Your task to perform on an android device: turn pop-ups on in chrome Image 0: 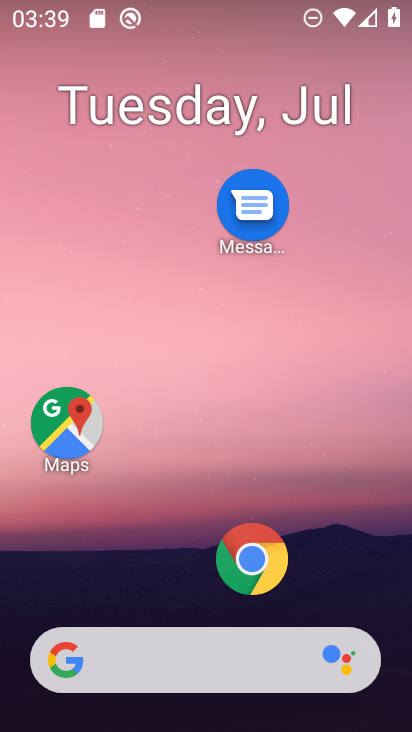
Step 0: click (259, 563)
Your task to perform on an android device: turn pop-ups on in chrome Image 1: 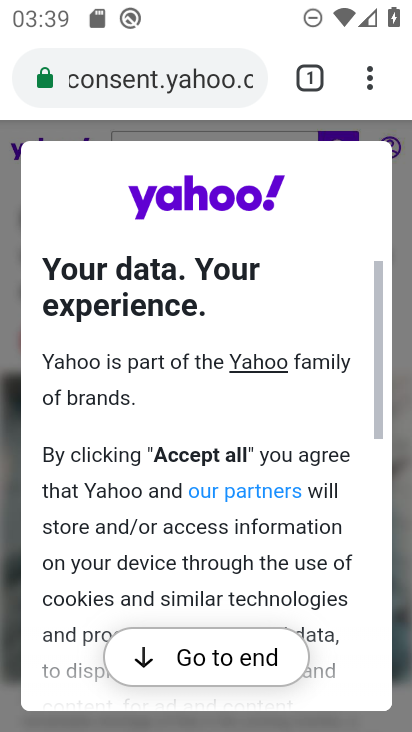
Step 1: drag from (367, 74) to (90, 611)
Your task to perform on an android device: turn pop-ups on in chrome Image 2: 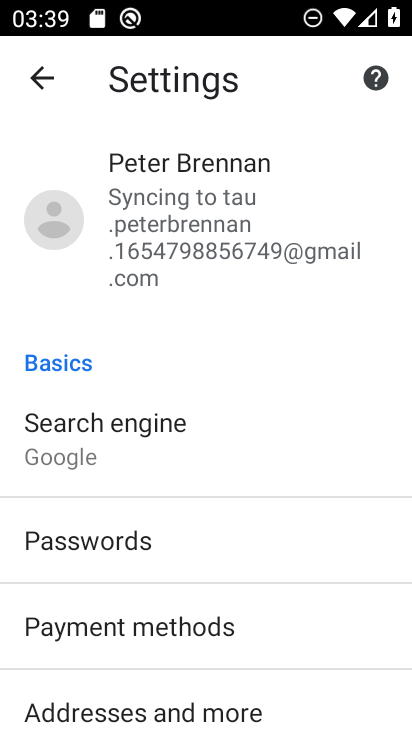
Step 2: drag from (132, 667) to (266, 215)
Your task to perform on an android device: turn pop-ups on in chrome Image 3: 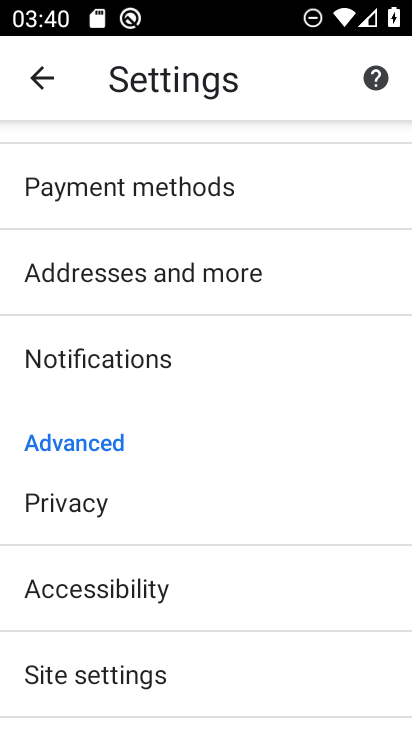
Step 3: click (88, 658)
Your task to perform on an android device: turn pop-ups on in chrome Image 4: 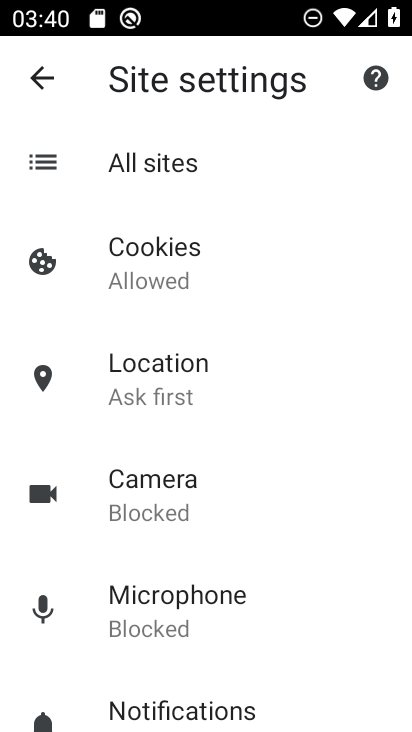
Step 4: drag from (161, 693) to (285, 61)
Your task to perform on an android device: turn pop-ups on in chrome Image 5: 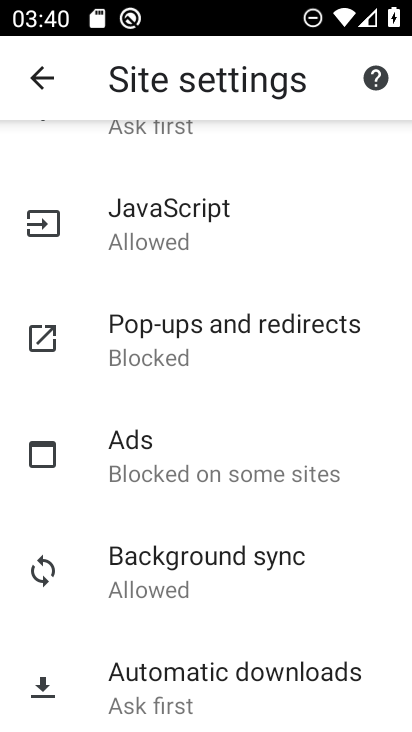
Step 5: click (192, 338)
Your task to perform on an android device: turn pop-ups on in chrome Image 6: 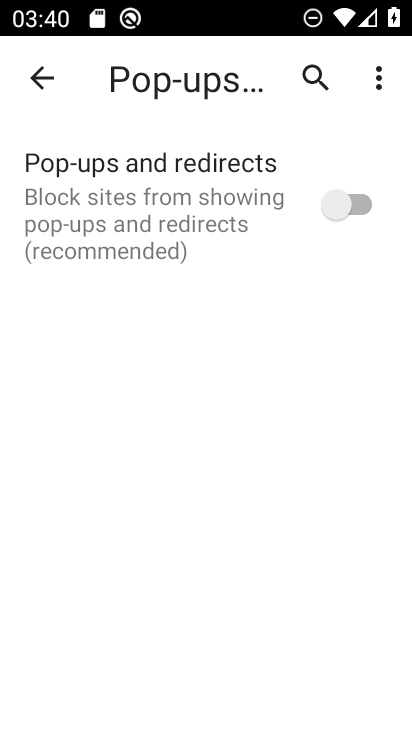
Step 6: click (345, 196)
Your task to perform on an android device: turn pop-ups on in chrome Image 7: 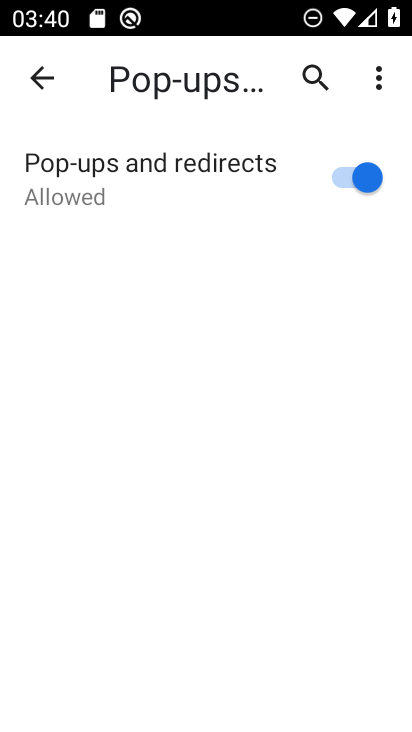
Step 7: task complete